Your task to perform on an android device: turn on sleep mode Image 0: 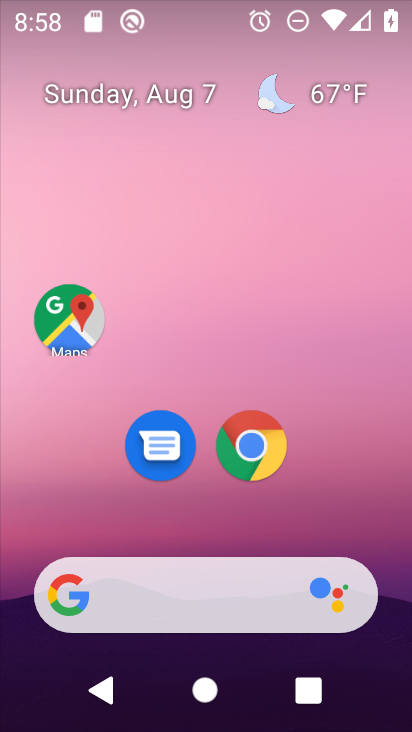
Step 0: press home button
Your task to perform on an android device: turn on sleep mode Image 1: 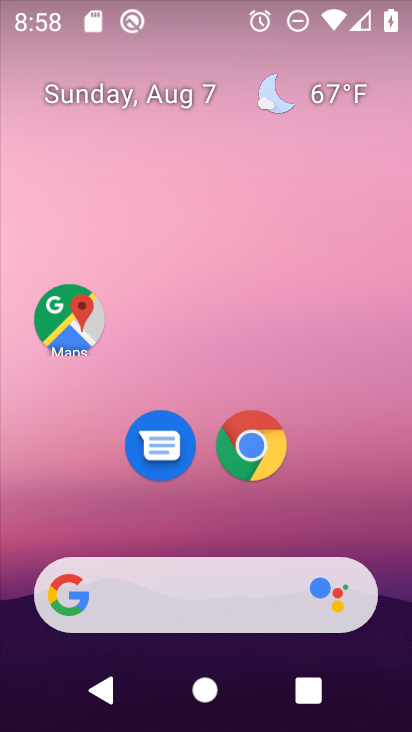
Step 1: drag from (218, 502) to (241, 62)
Your task to perform on an android device: turn on sleep mode Image 2: 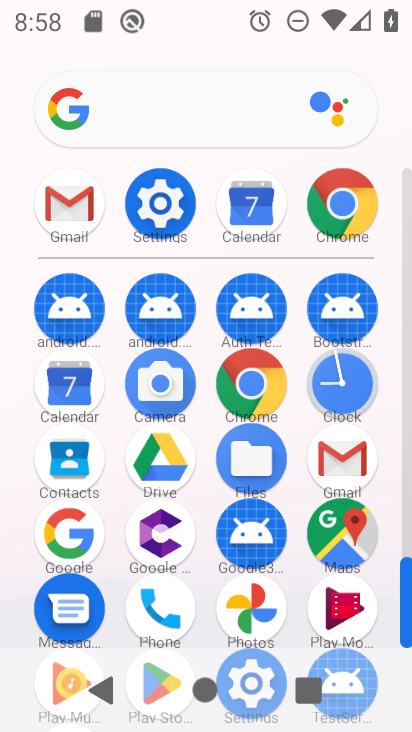
Step 2: click (158, 193)
Your task to perform on an android device: turn on sleep mode Image 3: 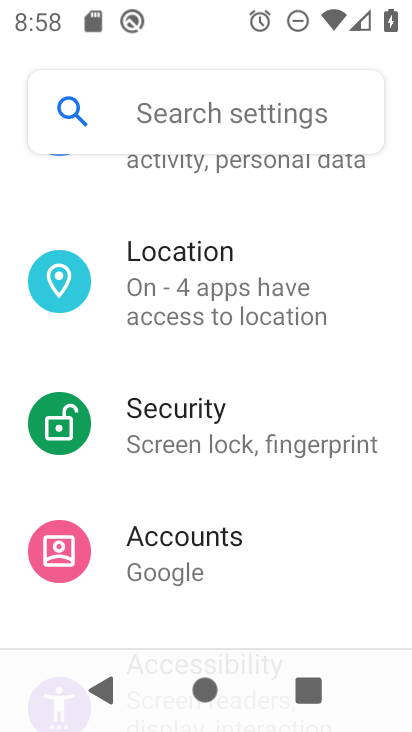
Step 3: drag from (191, 228) to (227, 512)
Your task to perform on an android device: turn on sleep mode Image 4: 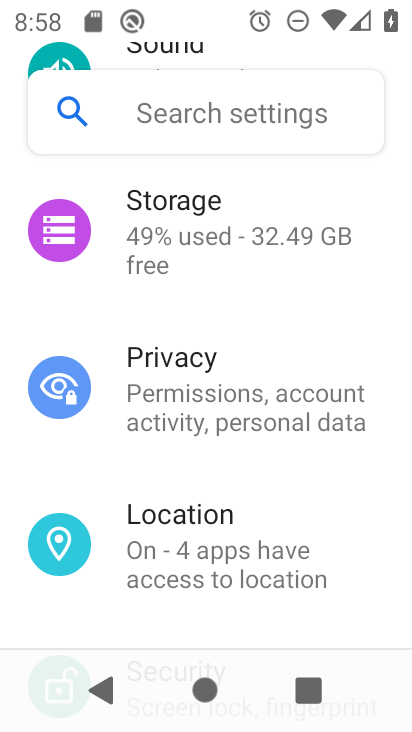
Step 4: drag from (199, 268) to (204, 604)
Your task to perform on an android device: turn on sleep mode Image 5: 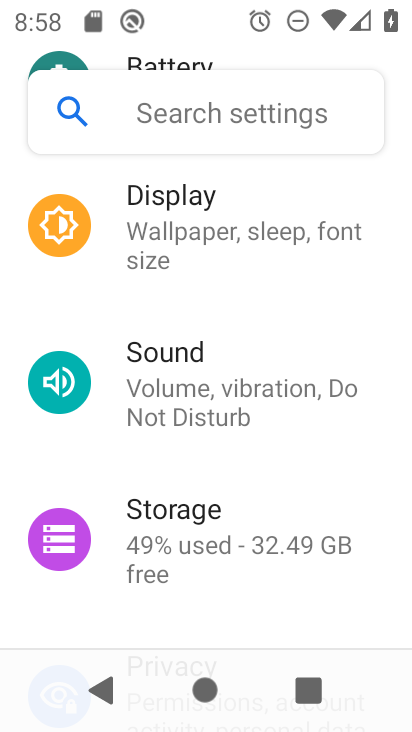
Step 5: click (180, 226)
Your task to perform on an android device: turn on sleep mode Image 6: 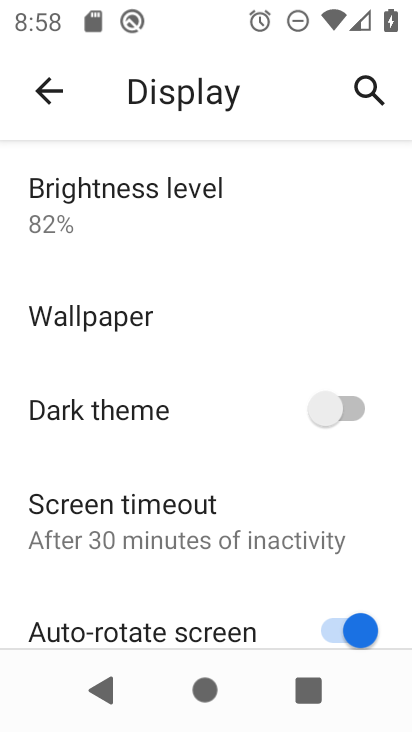
Step 6: task complete